Your task to perform on an android device: Open Chrome and go to settings Image 0: 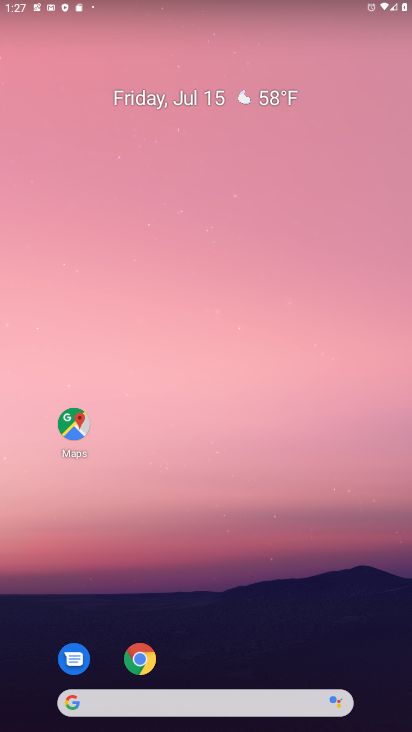
Step 0: click (141, 663)
Your task to perform on an android device: Open Chrome and go to settings Image 1: 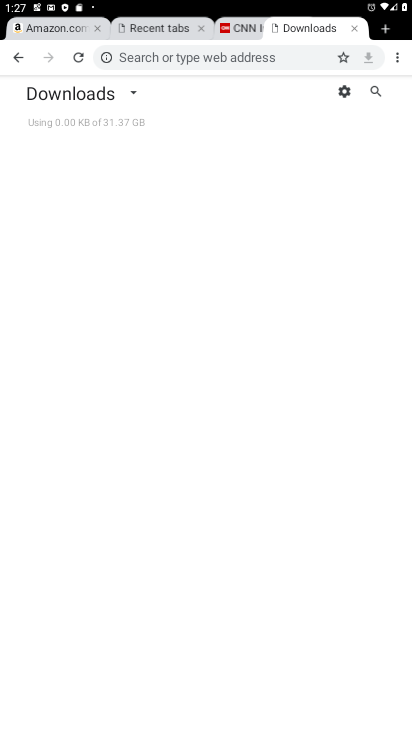
Step 1: click (397, 59)
Your task to perform on an android device: Open Chrome and go to settings Image 2: 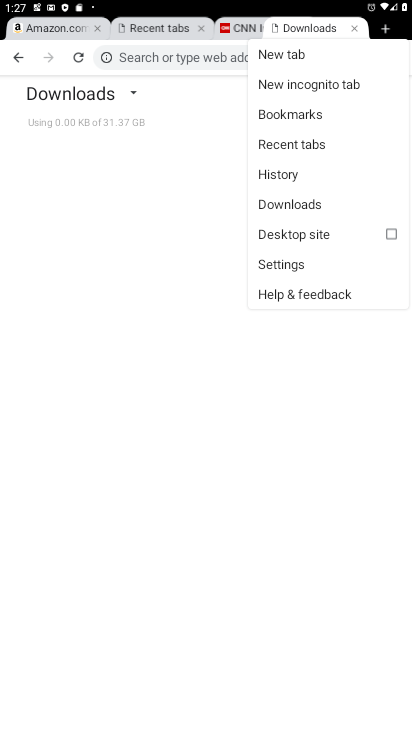
Step 2: click (270, 265)
Your task to perform on an android device: Open Chrome and go to settings Image 3: 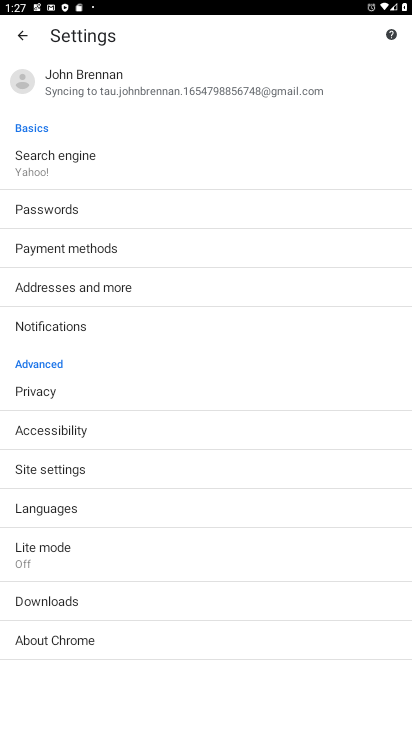
Step 3: task complete